Your task to perform on an android device: search for starred emails in the gmail app Image 0: 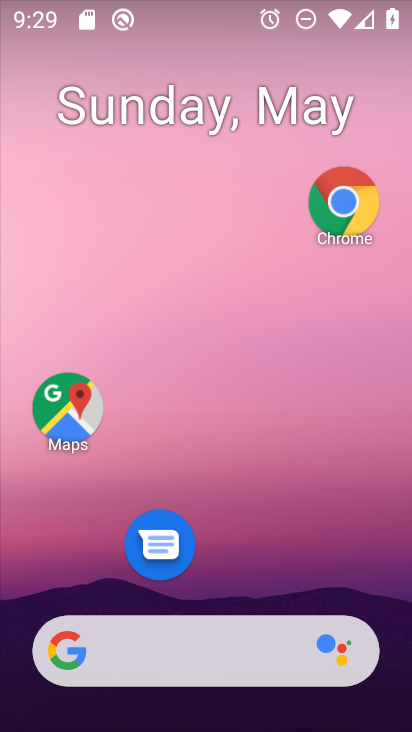
Step 0: drag from (263, 577) to (305, 90)
Your task to perform on an android device: search for starred emails in the gmail app Image 1: 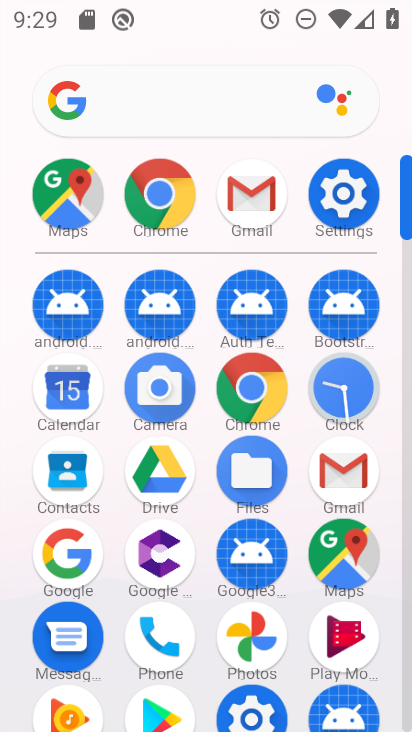
Step 1: click (335, 480)
Your task to perform on an android device: search for starred emails in the gmail app Image 2: 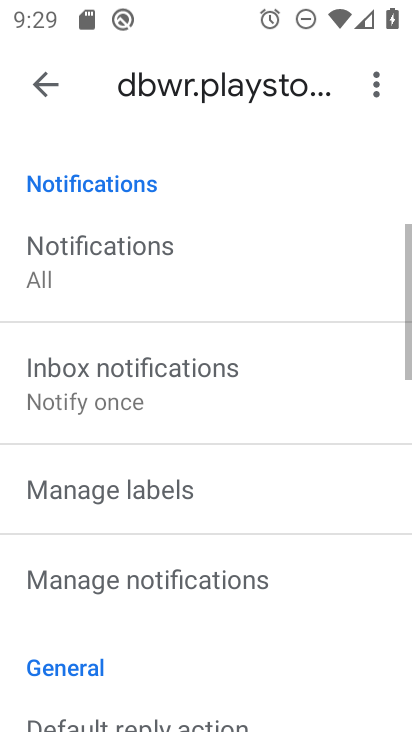
Step 2: click (47, 93)
Your task to perform on an android device: search for starred emails in the gmail app Image 3: 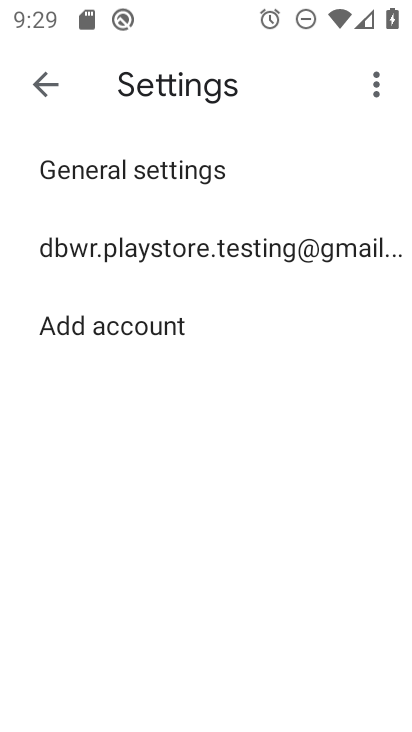
Step 3: click (47, 93)
Your task to perform on an android device: search for starred emails in the gmail app Image 4: 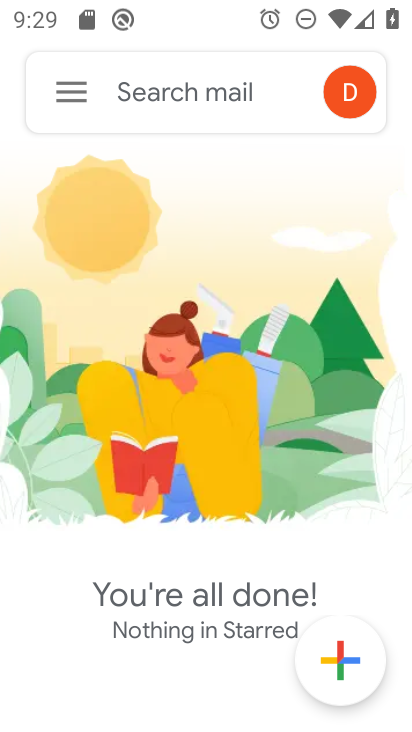
Step 4: click (75, 105)
Your task to perform on an android device: search for starred emails in the gmail app Image 5: 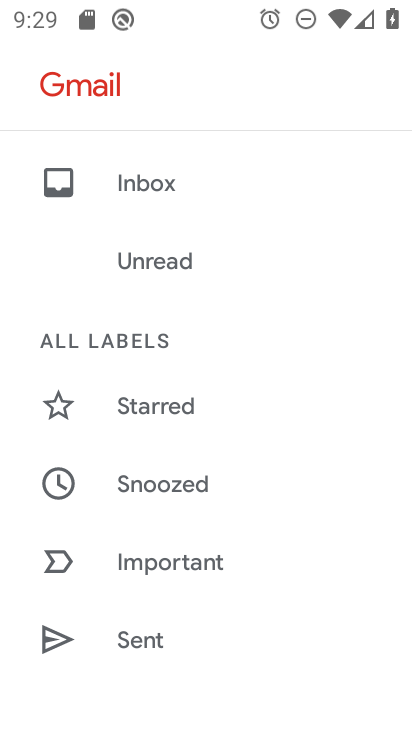
Step 5: click (177, 388)
Your task to perform on an android device: search for starred emails in the gmail app Image 6: 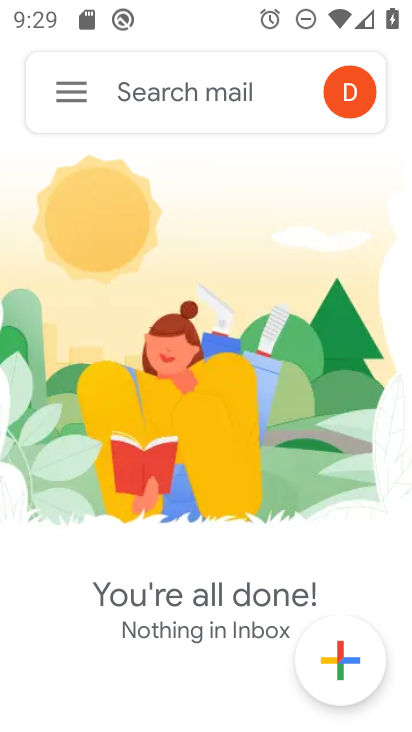
Step 6: task complete